Your task to perform on an android device: Open the calendar and show me this week's events? Image 0: 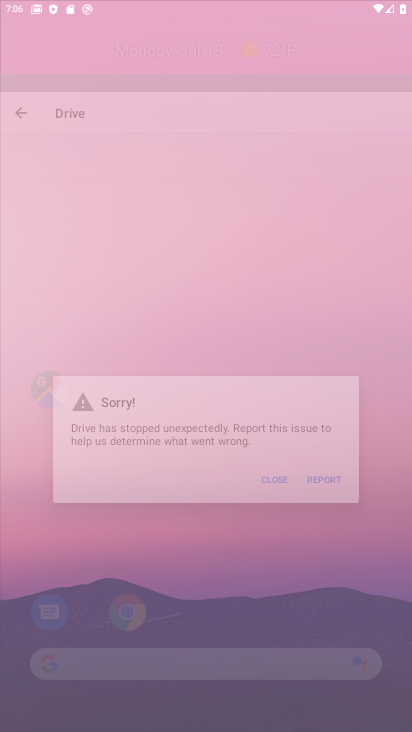
Step 0: drag from (368, 633) to (226, 160)
Your task to perform on an android device: Open the calendar and show me this week's events? Image 1: 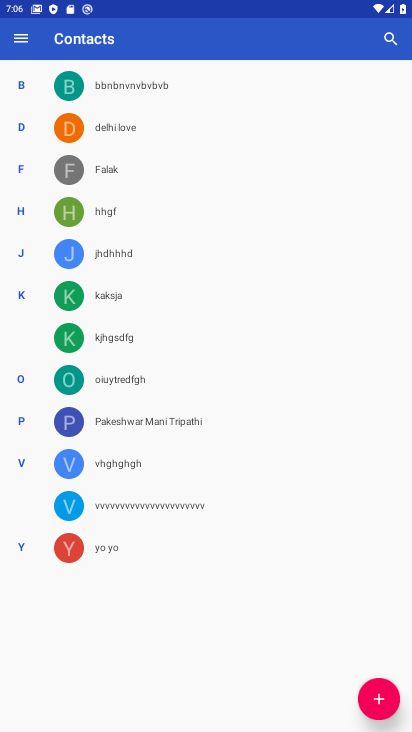
Step 1: press home button
Your task to perform on an android device: Open the calendar and show me this week's events? Image 2: 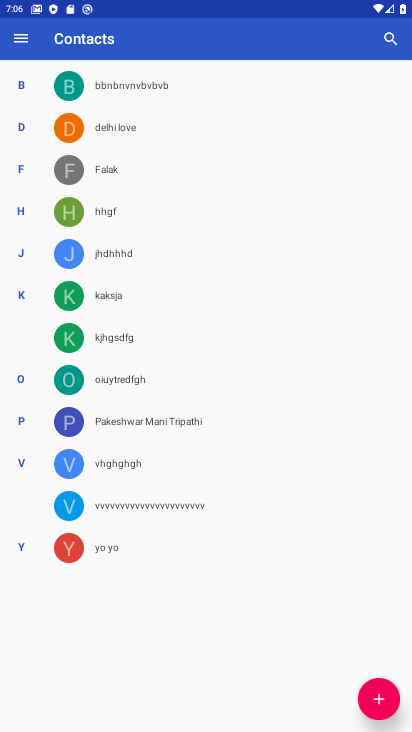
Step 2: drag from (358, 692) to (224, 97)
Your task to perform on an android device: Open the calendar and show me this week's events? Image 3: 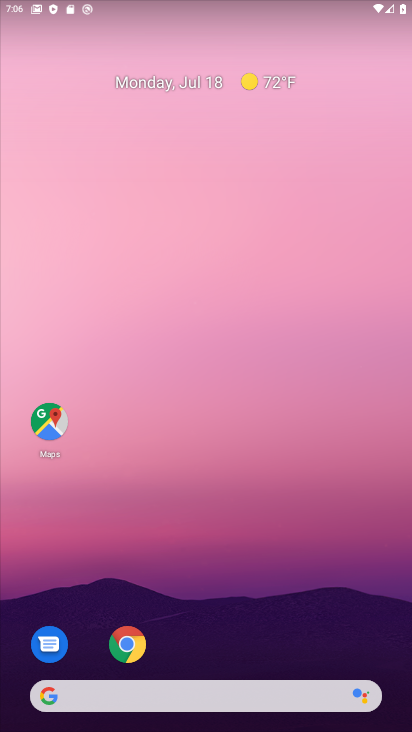
Step 3: drag from (305, 633) to (214, 26)
Your task to perform on an android device: Open the calendar and show me this week's events? Image 4: 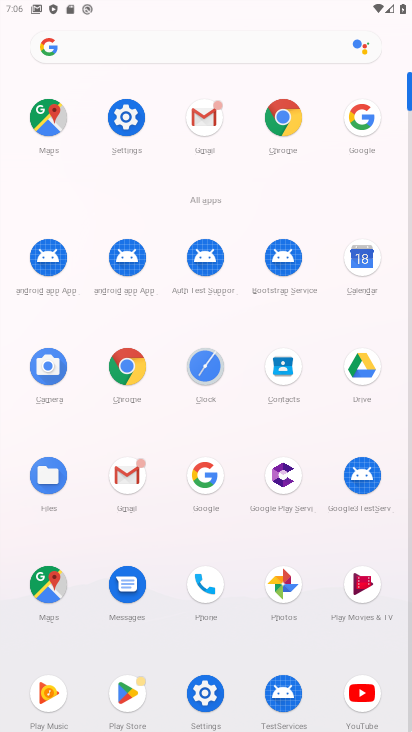
Step 4: click (358, 254)
Your task to perform on an android device: Open the calendar and show me this week's events? Image 5: 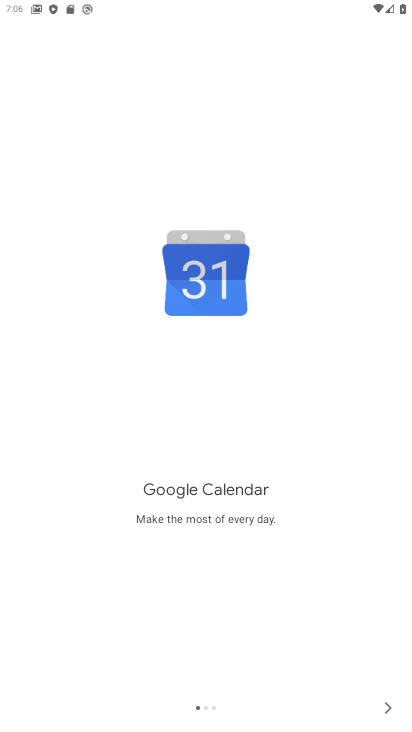
Step 5: click (387, 704)
Your task to perform on an android device: Open the calendar and show me this week's events? Image 6: 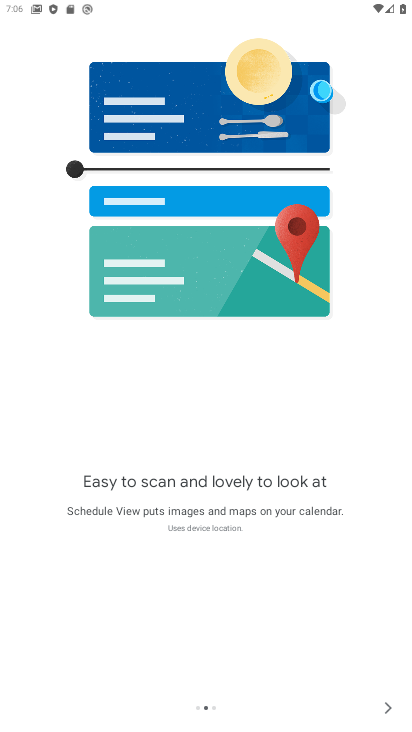
Step 6: click (388, 705)
Your task to perform on an android device: Open the calendar and show me this week's events? Image 7: 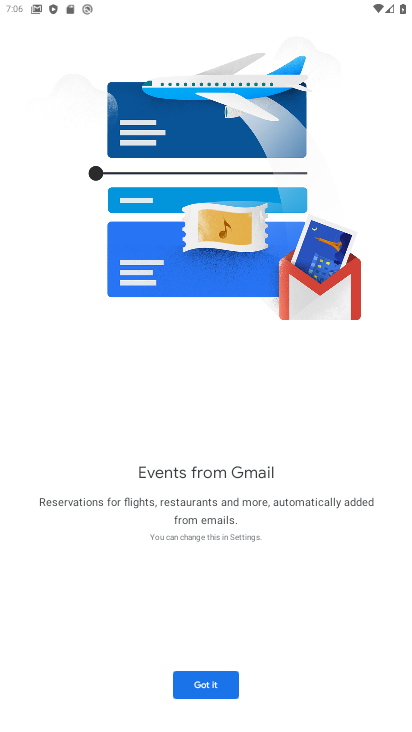
Step 7: click (181, 684)
Your task to perform on an android device: Open the calendar and show me this week's events? Image 8: 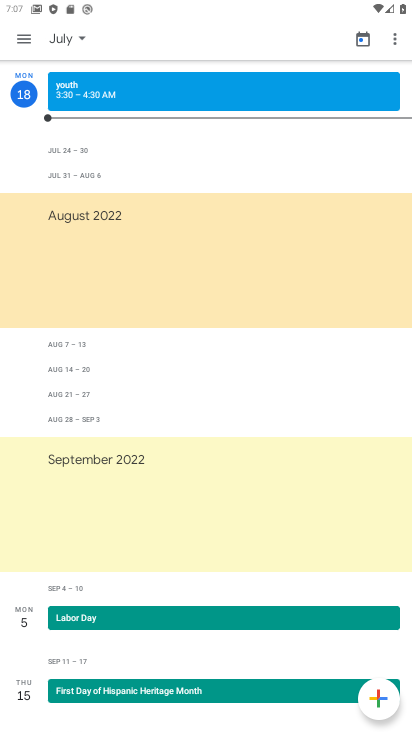
Step 8: task complete